Your task to perform on an android device: uninstall "Fetch Rewards" Image 0: 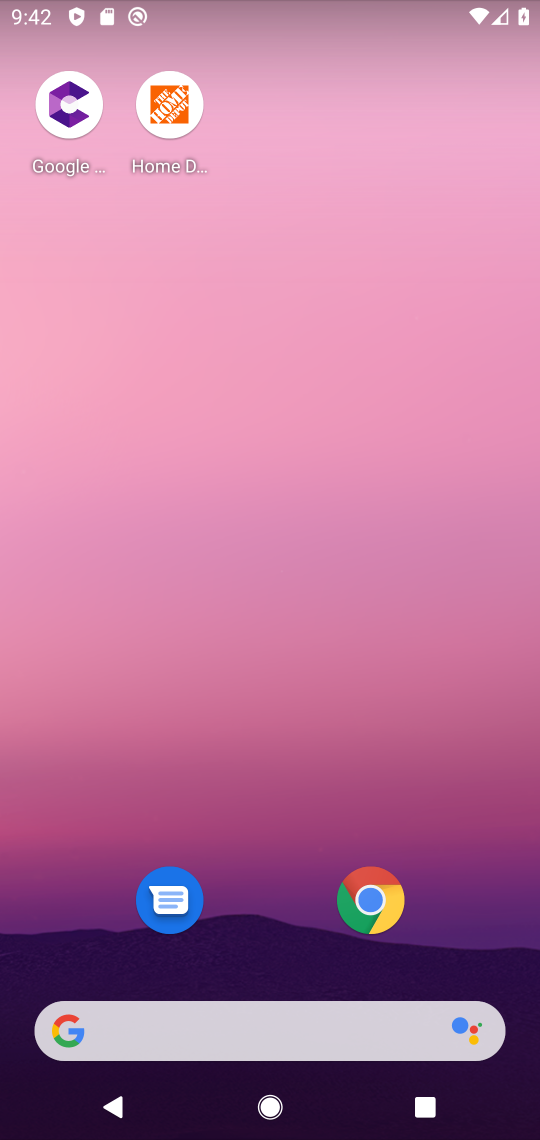
Step 0: drag from (283, 833) to (388, 274)
Your task to perform on an android device: uninstall "Fetch Rewards" Image 1: 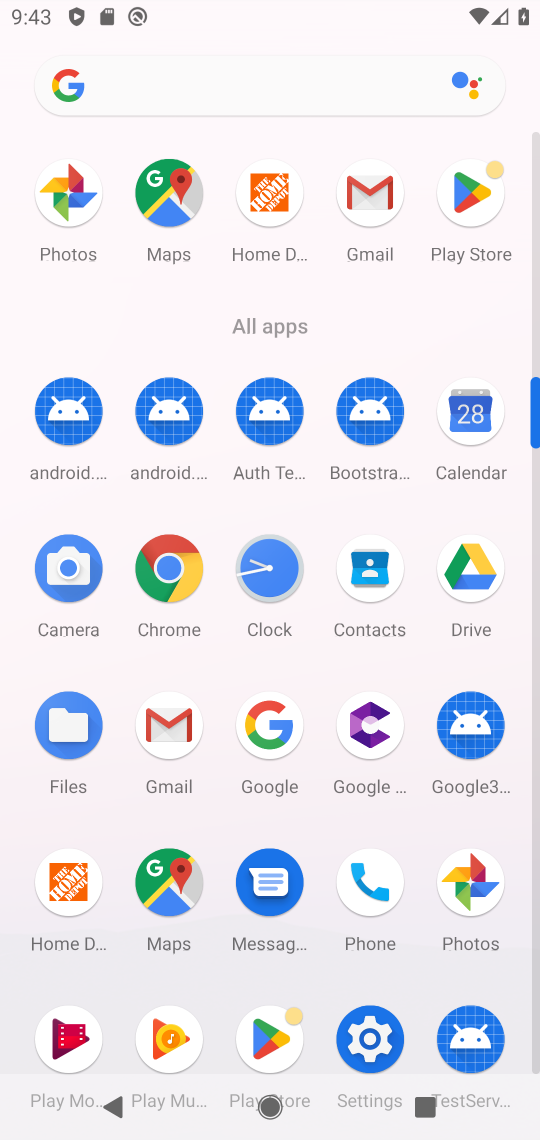
Step 1: click (497, 201)
Your task to perform on an android device: uninstall "Fetch Rewards" Image 2: 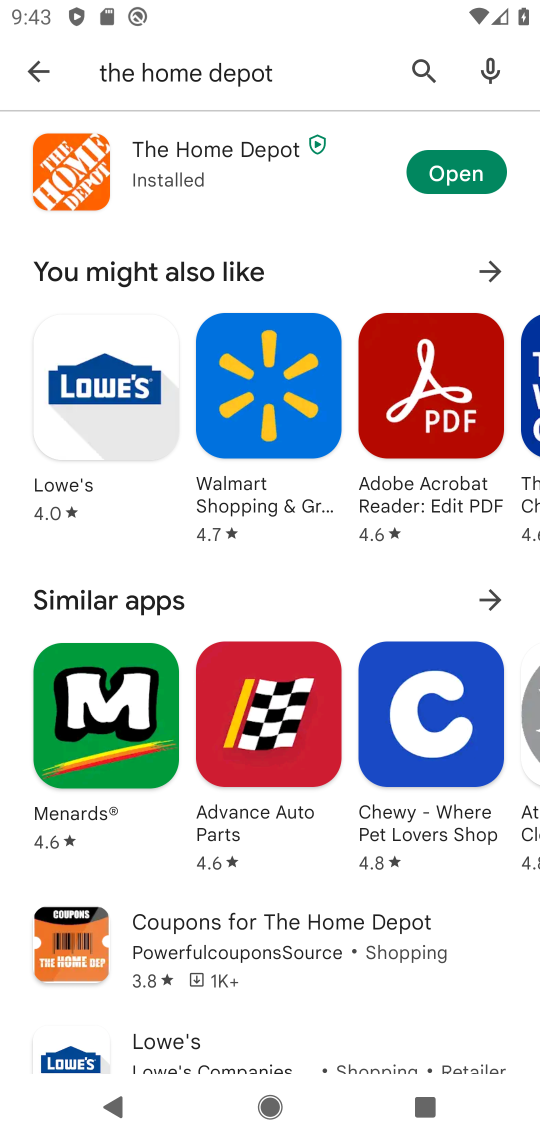
Step 2: click (33, 77)
Your task to perform on an android device: uninstall "Fetch Rewards" Image 3: 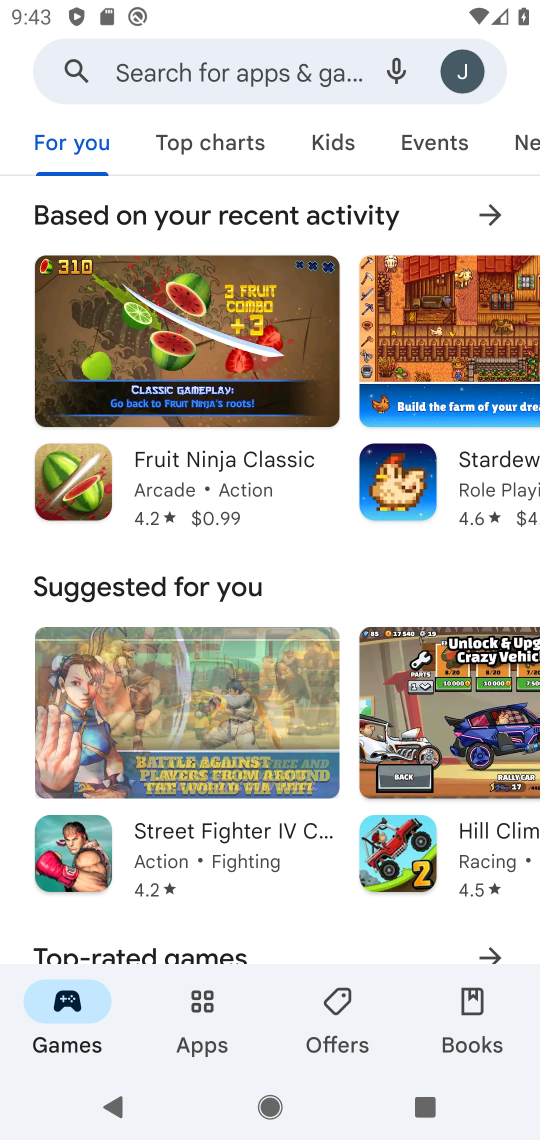
Step 3: click (255, 82)
Your task to perform on an android device: uninstall "Fetch Rewards" Image 4: 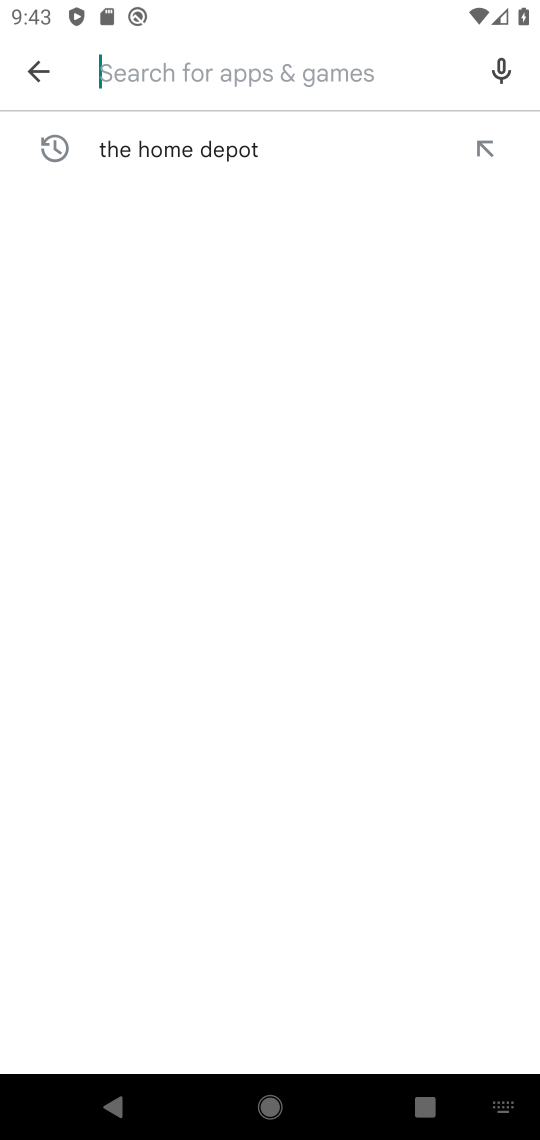
Step 4: type "Fetch Rewards"
Your task to perform on an android device: uninstall "Fetch Rewards" Image 5: 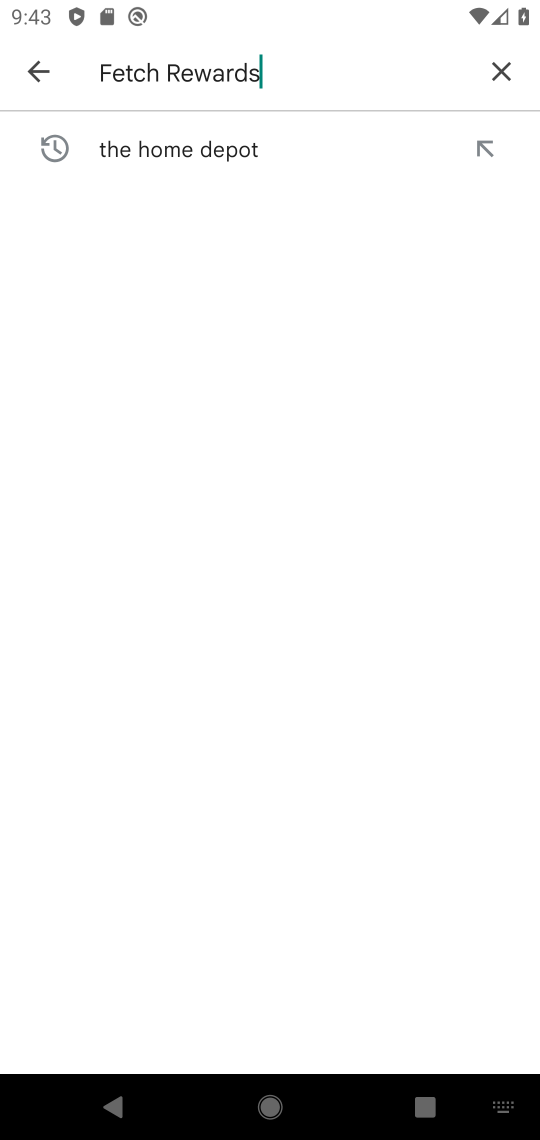
Step 5: type ""
Your task to perform on an android device: uninstall "Fetch Rewards" Image 6: 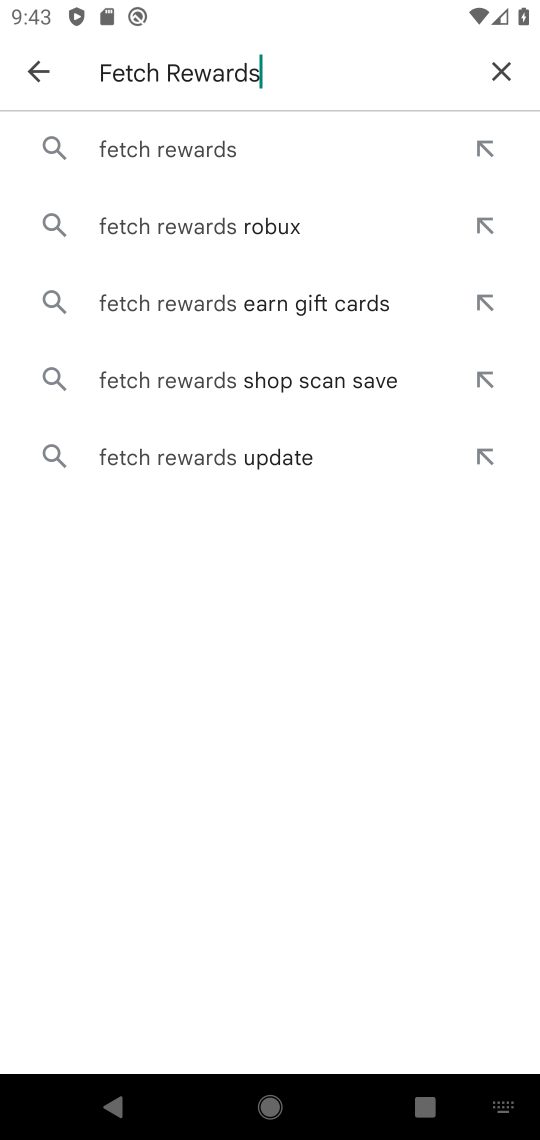
Step 6: click (245, 162)
Your task to perform on an android device: uninstall "Fetch Rewards" Image 7: 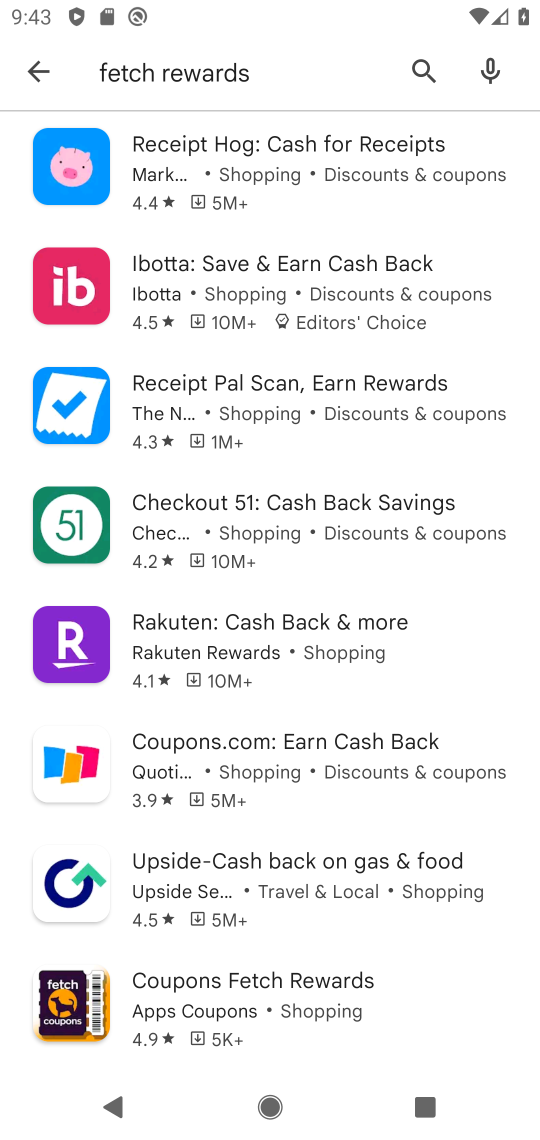
Step 7: task complete